Your task to perform on an android device: change notification settings in the gmail app Image 0: 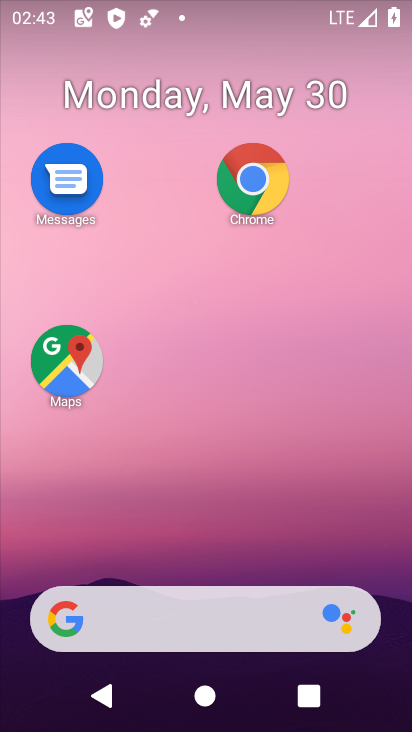
Step 0: drag from (170, 520) to (164, 11)
Your task to perform on an android device: change notification settings in the gmail app Image 1: 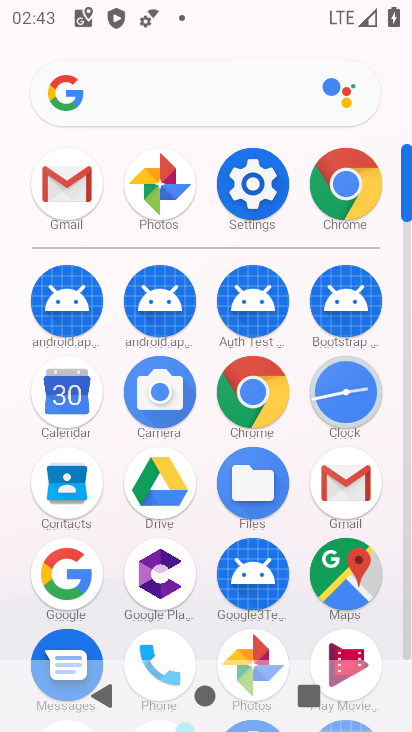
Step 1: click (74, 208)
Your task to perform on an android device: change notification settings in the gmail app Image 2: 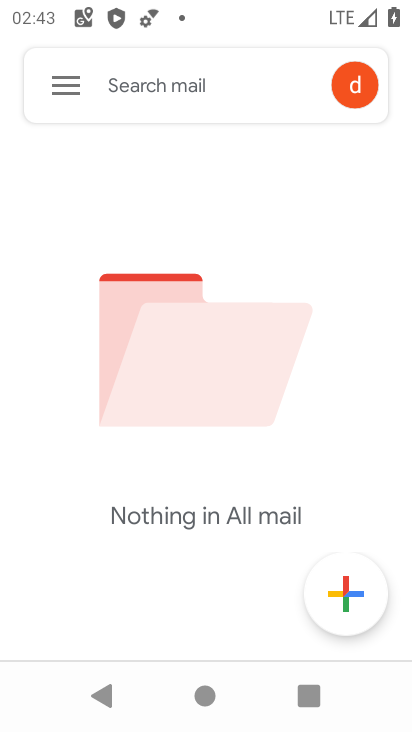
Step 2: click (62, 82)
Your task to perform on an android device: change notification settings in the gmail app Image 3: 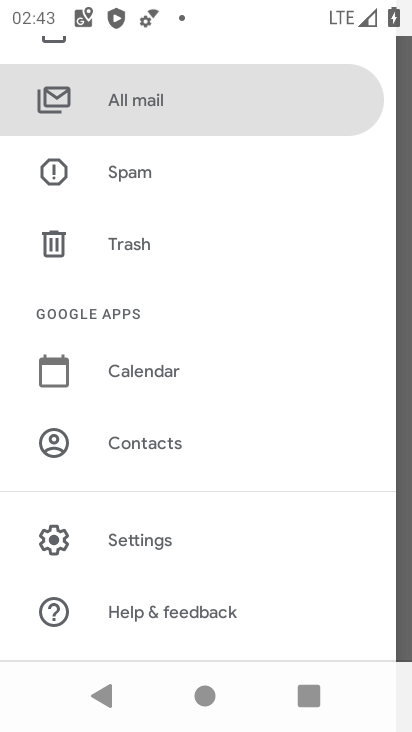
Step 3: click (130, 550)
Your task to perform on an android device: change notification settings in the gmail app Image 4: 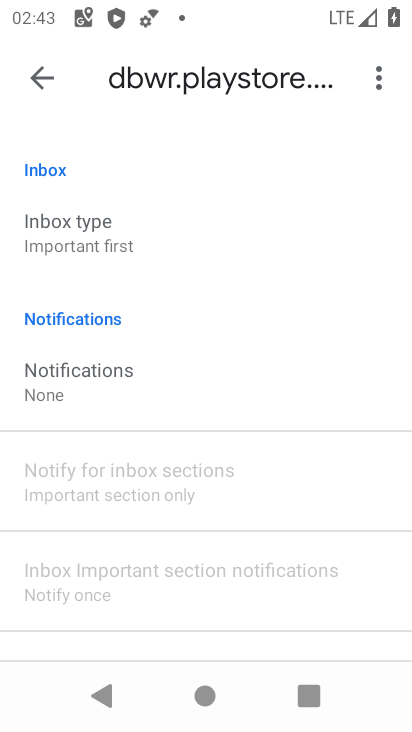
Step 4: click (101, 392)
Your task to perform on an android device: change notification settings in the gmail app Image 5: 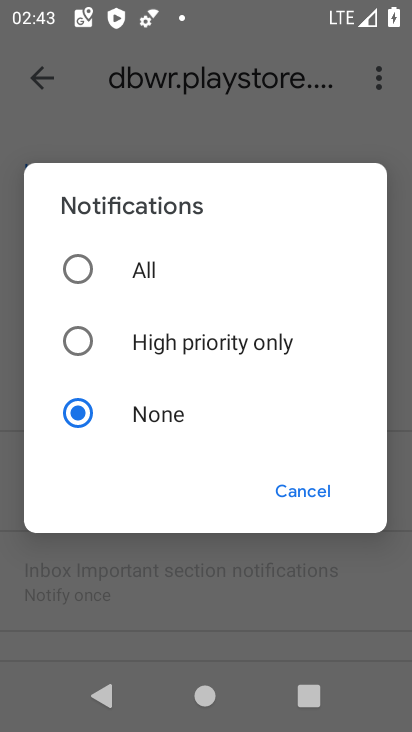
Step 5: click (87, 274)
Your task to perform on an android device: change notification settings in the gmail app Image 6: 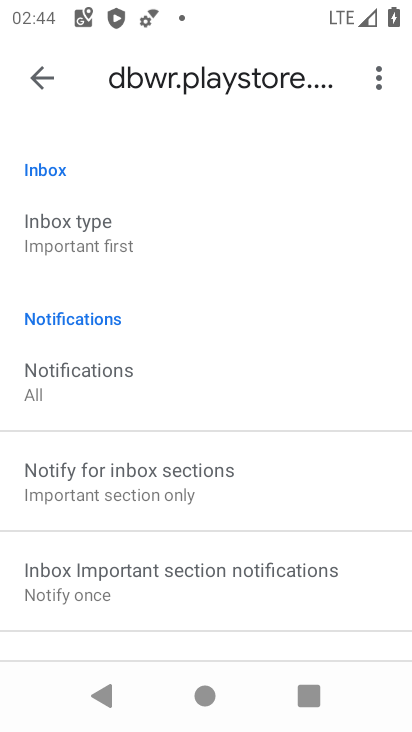
Step 6: task complete